Your task to perform on an android device: Go to Amazon Image 0: 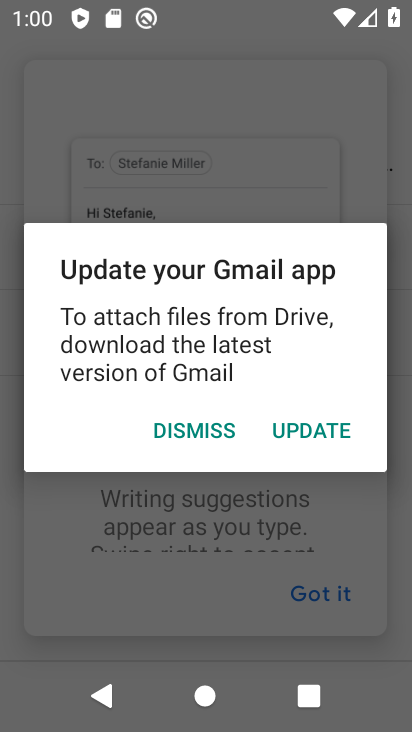
Step 0: press home button
Your task to perform on an android device: Go to Amazon Image 1: 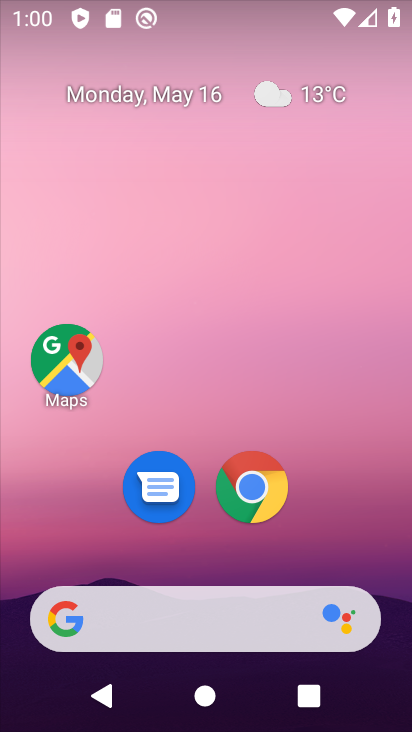
Step 1: click (252, 485)
Your task to perform on an android device: Go to Amazon Image 2: 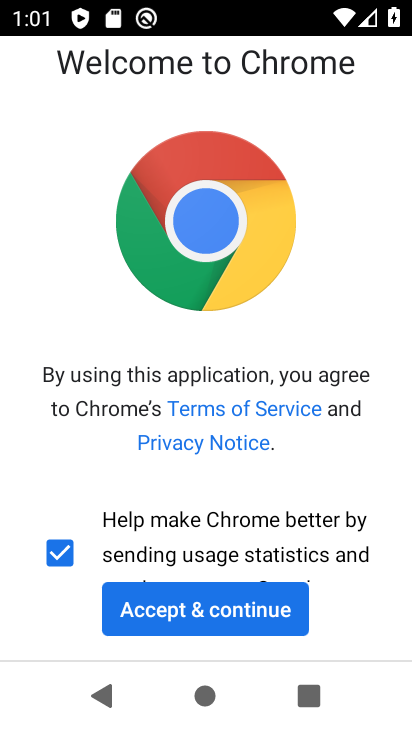
Step 2: click (232, 600)
Your task to perform on an android device: Go to Amazon Image 3: 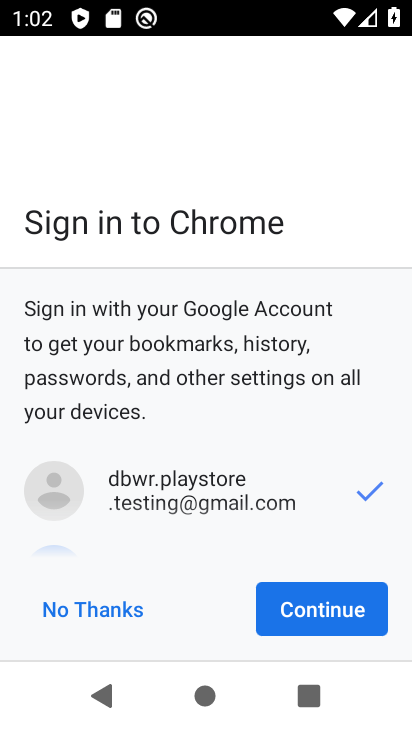
Step 3: click (314, 612)
Your task to perform on an android device: Go to Amazon Image 4: 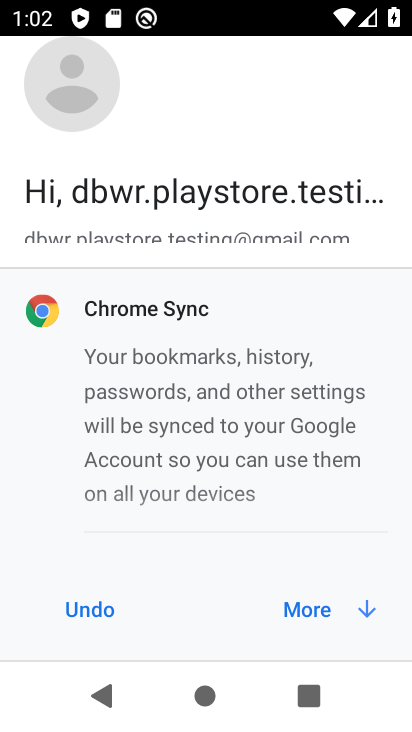
Step 4: click (314, 612)
Your task to perform on an android device: Go to Amazon Image 5: 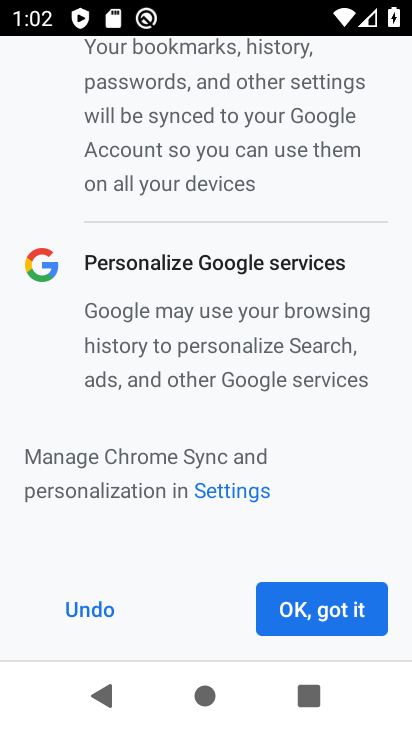
Step 5: click (314, 612)
Your task to perform on an android device: Go to Amazon Image 6: 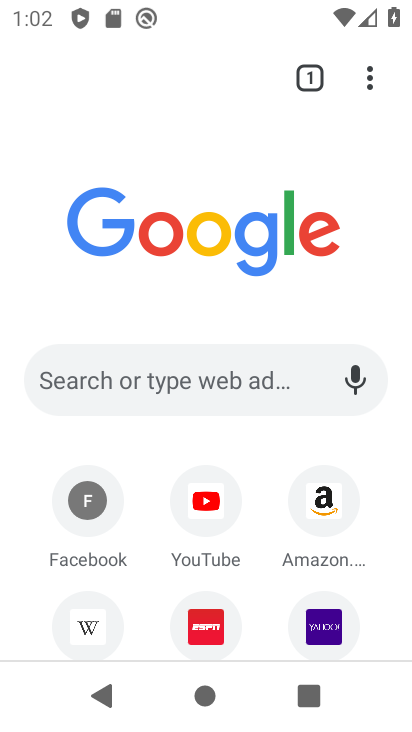
Step 6: click (301, 507)
Your task to perform on an android device: Go to Amazon Image 7: 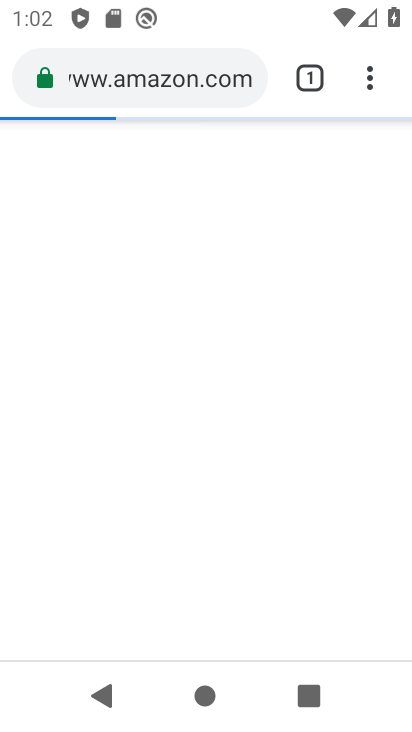
Step 7: click (301, 507)
Your task to perform on an android device: Go to Amazon Image 8: 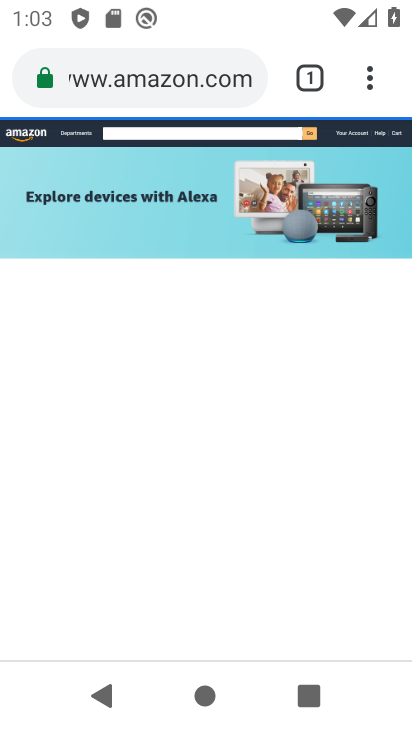
Step 8: click (330, 505)
Your task to perform on an android device: Go to Amazon Image 9: 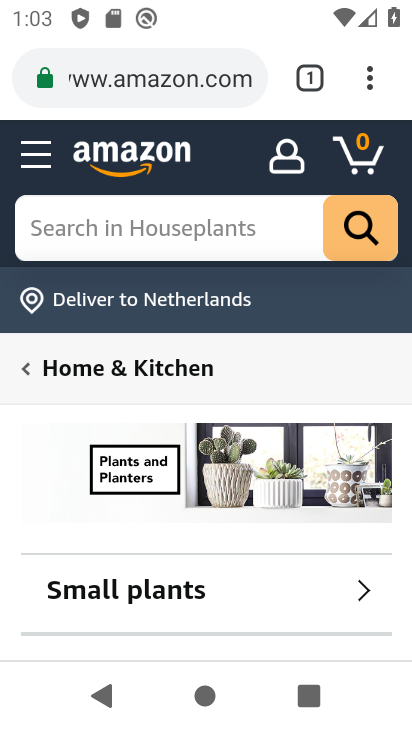
Step 9: task complete